Your task to perform on an android device: turn pop-ups off in chrome Image 0: 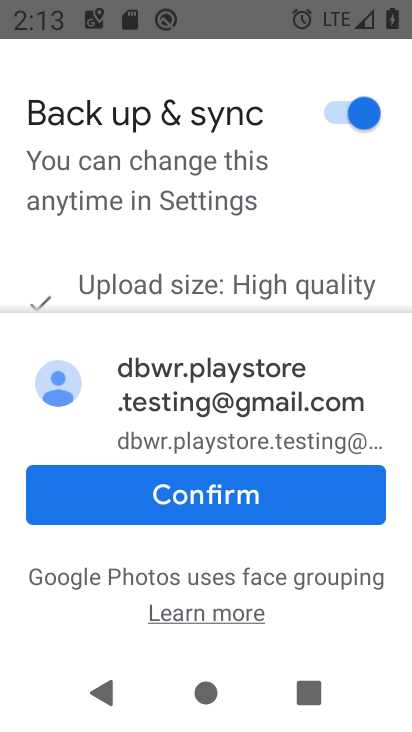
Step 0: press home button
Your task to perform on an android device: turn pop-ups off in chrome Image 1: 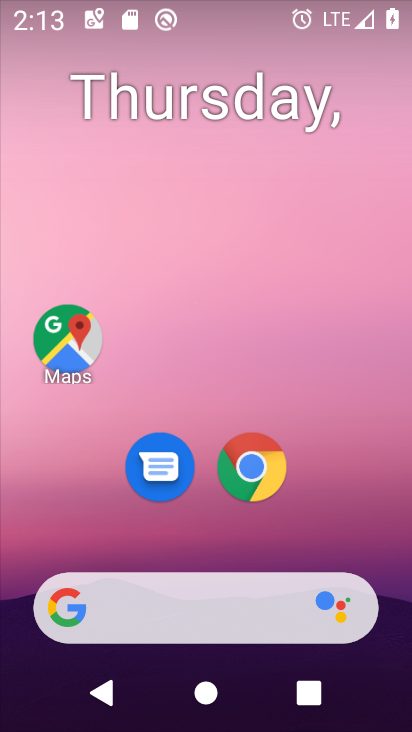
Step 1: drag from (211, 563) to (185, 13)
Your task to perform on an android device: turn pop-ups off in chrome Image 2: 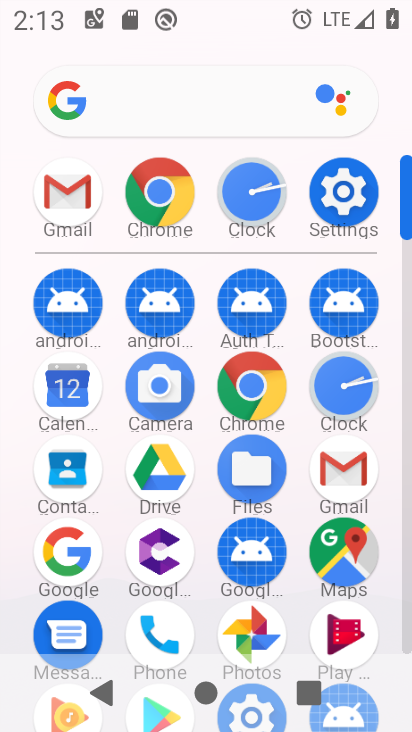
Step 2: click (245, 190)
Your task to perform on an android device: turn pop-ups off in chrome Image 3: 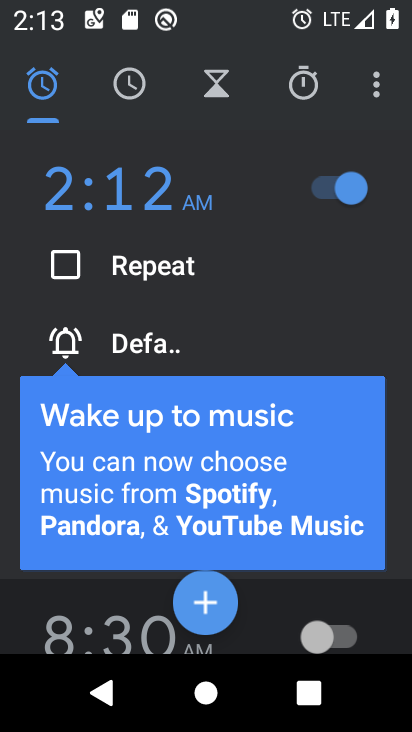
Step 3: press home button
Your task to perform on an android device: turn pop-ups off in chrome Image 4: 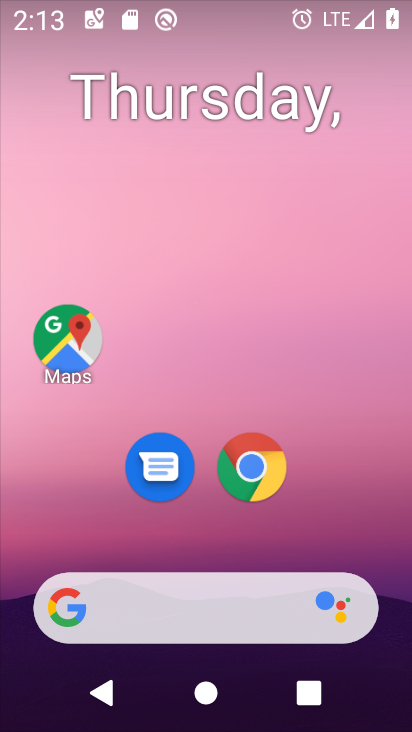
Step 4: drag from (211, 558) to (188, 5)
Your task to perform on an android device: turn pop-ups off in chrome Image 5: 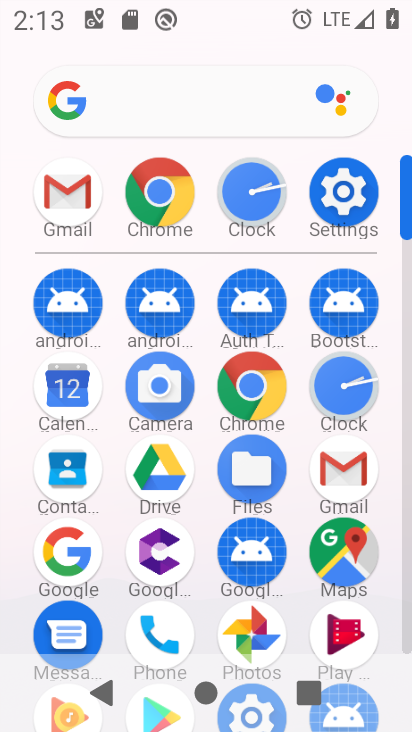
Step 5: click (249, 370)
Your task to perform on an android device: turn pop-ups off in chrome Image 6: 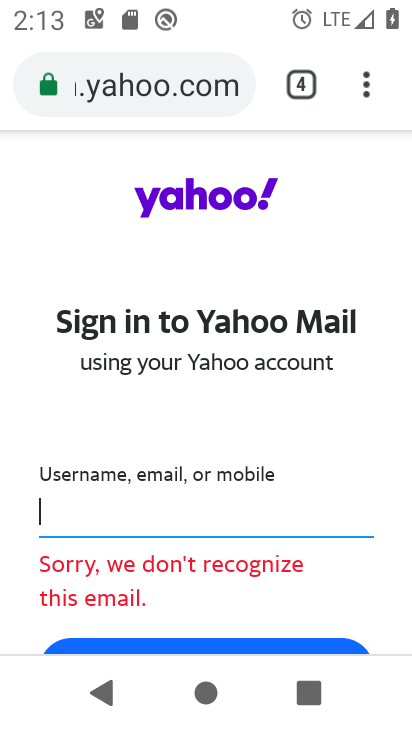
Step 6: click (358, 100)
Your task to perform on an android device: turn pop-ups off in chrome Image 7: 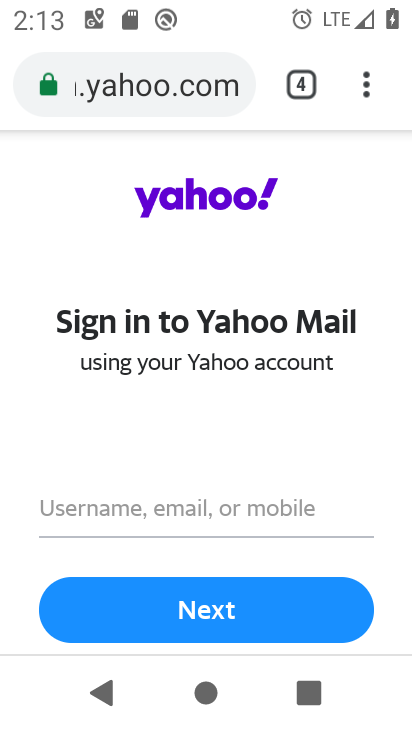
Step 7: click (369, 95)
Your task to perform on an android device: turn pop-ups off in chrome Image 8: 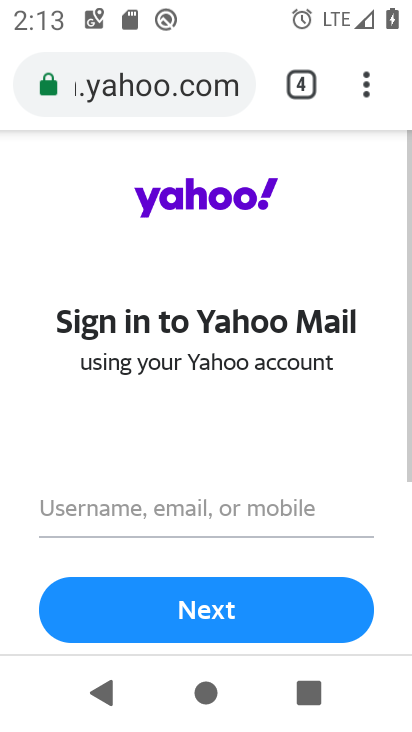
Step 8: drag from (369, 87) to (183, 565)
Your task to perform on an android device: turn pop-ups off in chrome Image 9: 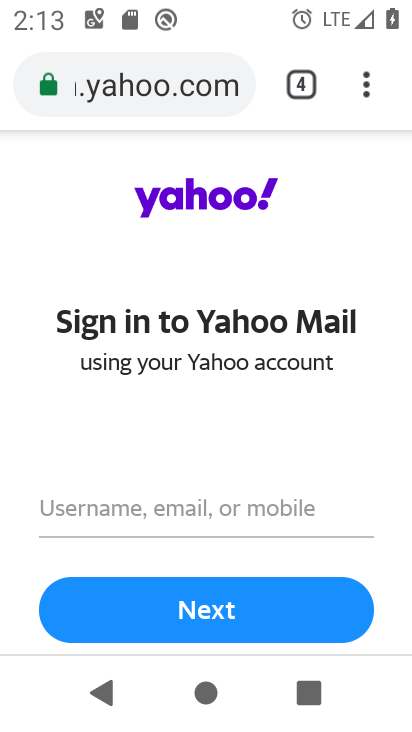
Step 9: click (183, 543)
Your task to perform on an android device: turn pop-ups off in chrome Image 10: 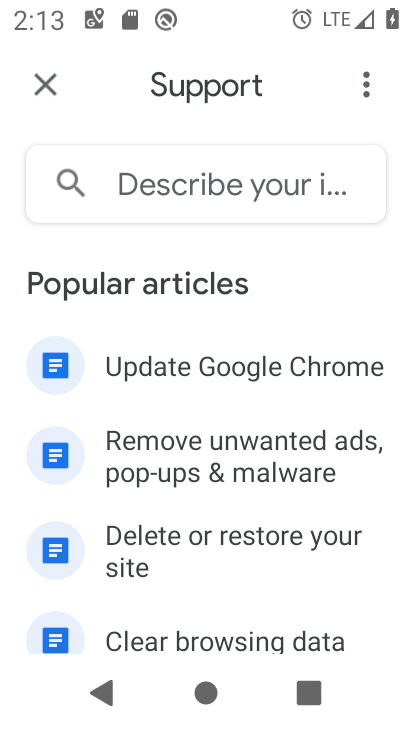
Step 10: click (56, 83)
Your task to perform on an android device: turn pop-ups off in chrome Image 11: 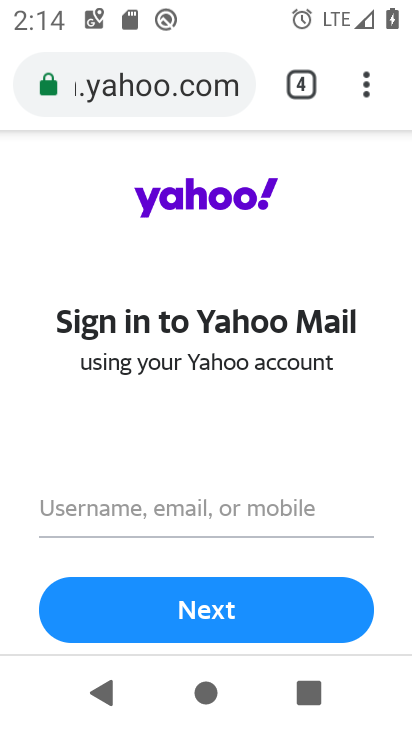
Step 11: press back button
Your task to perform on an android device: turn pop-ups off in chrome Image 12: 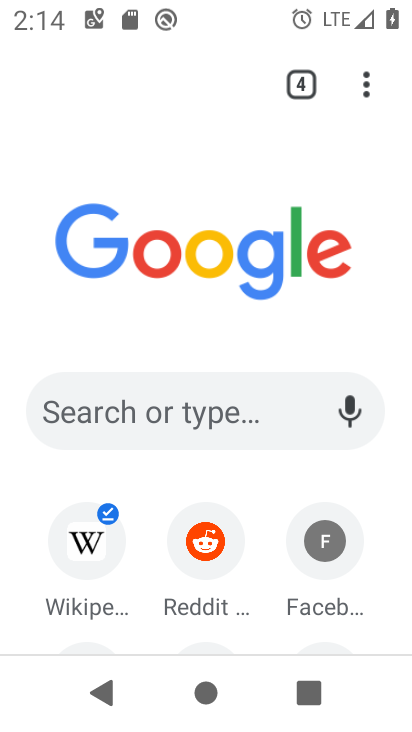
Step 12: click (374, 86)
Your task to perform on an android device: turn pop-ups off in chrome Image 13: 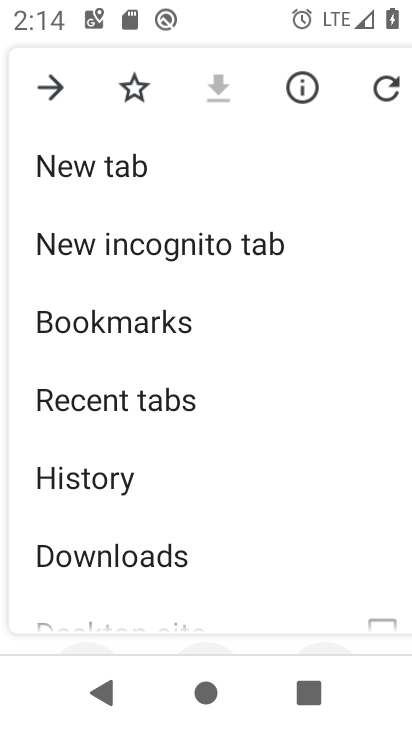
Step 13: drag from (178, 449) to (116, 131)
Your task to perform on an android device: turn pop-ups off in chrome Image 14: 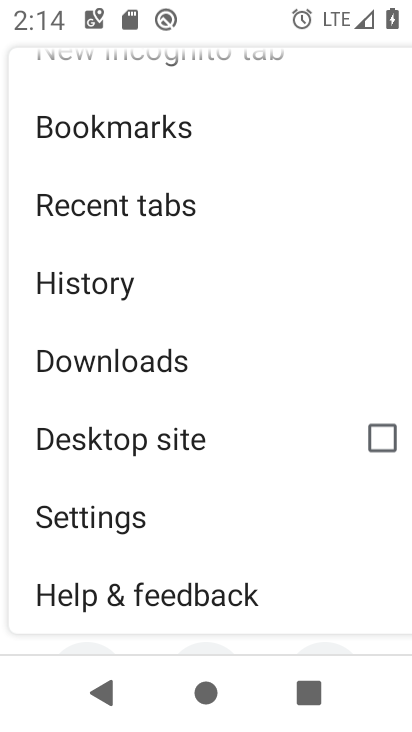
Step 14: click (123, 519)
Your task to perform on an android device: turn pop-ups off in chrome Image 15: 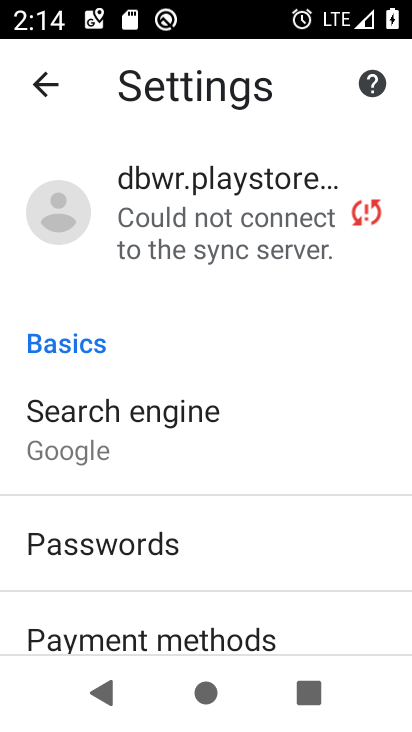
Step 15: drag from (160, 517) to (115, 2)
Your task to perform on an android device: turn pop-ups off in chrome Image 16: 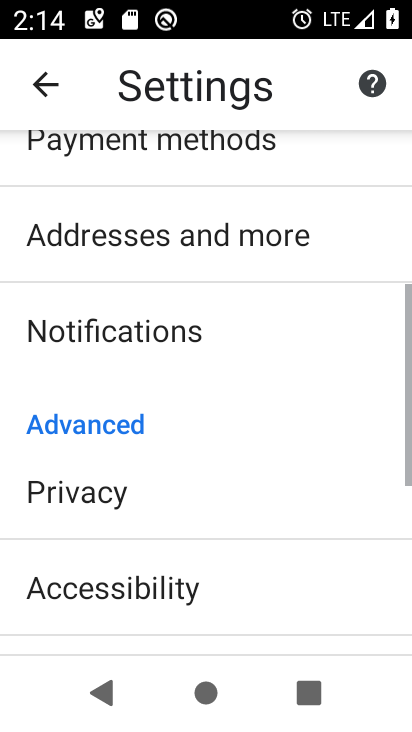
Step 16: drag from (233, 528) to (199, 151)
Your task to perform on an android device: turn pop-ups off in chrome Image 17: 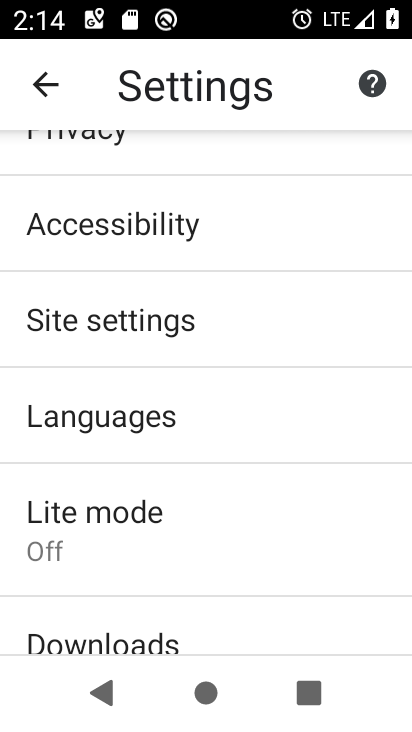
Step 17: click (132, 344)
Your task to perform on an android device: turn pop-ups off in chrome Image 18: 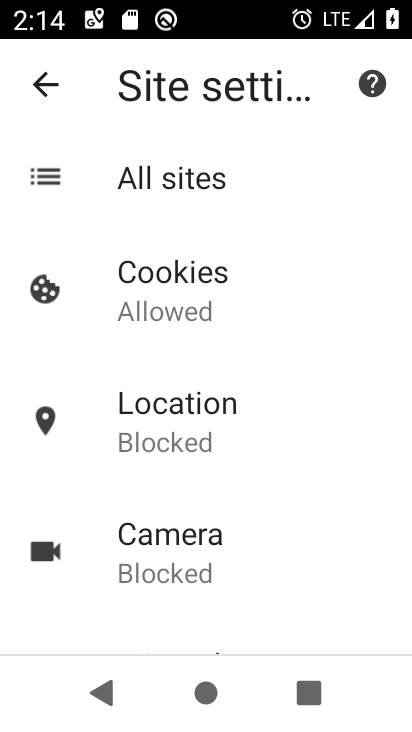
Step 18: drag from (193, 489) to (132, 81)
Your task to perform on an android device: turn pop-ups off in chrome Image 19: 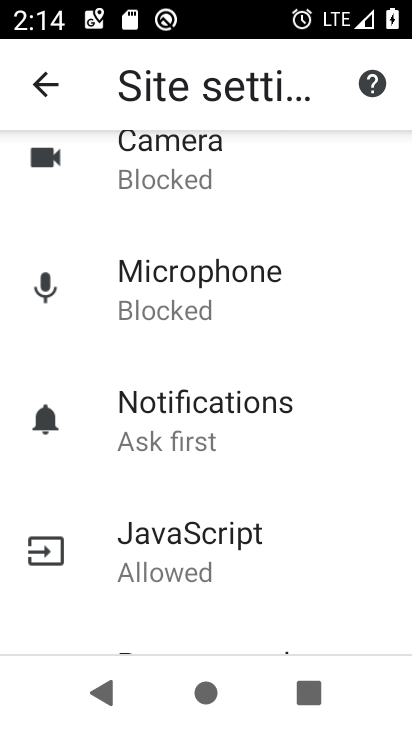
Step 19: drag from (210, 532) to (159, 162)
Your task to perform on an android device: turn pop-ups off in chrome Image 20: 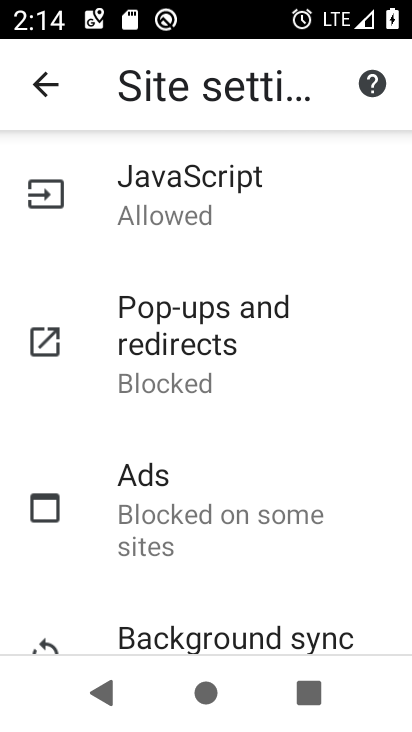
Step 20: drag from (224, 510) to (208, 291)
Your task to perform on an android device: turn pop-ups off in chrome Image 21: 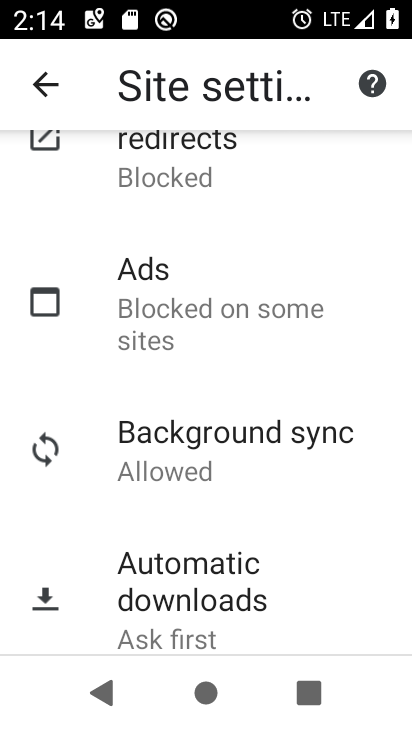
Step 21: click (199, 183)
Your task to perform on an android device: turn pop-ups off in chrome Image 22: 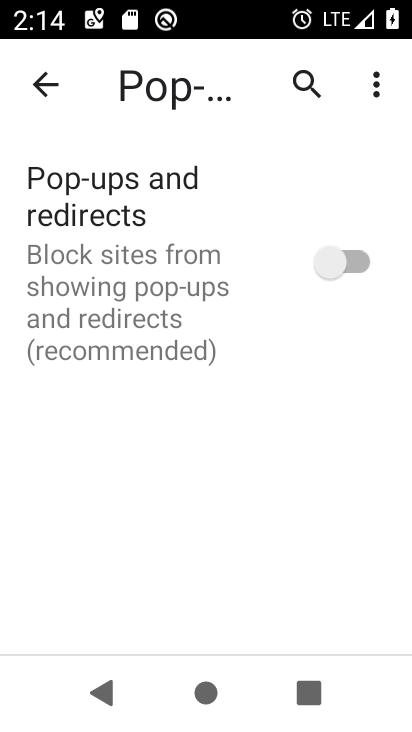
Step 22: task complete